Your task to perform on an android device: open chrome privacy settings Image 0: 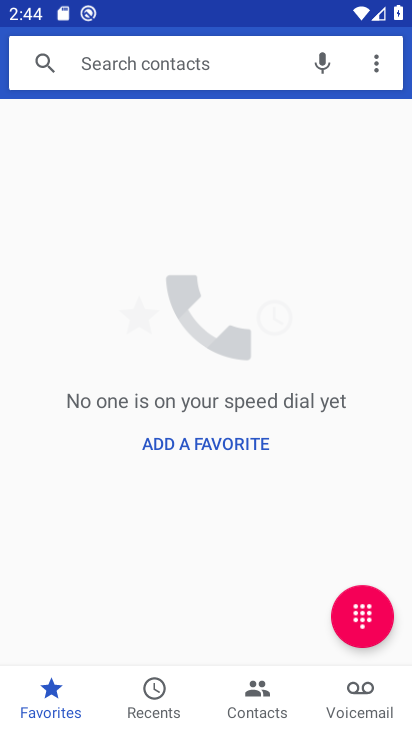
Step 0: press home button
Your task to perform on an android device: open chrome privacy settings Image 1: 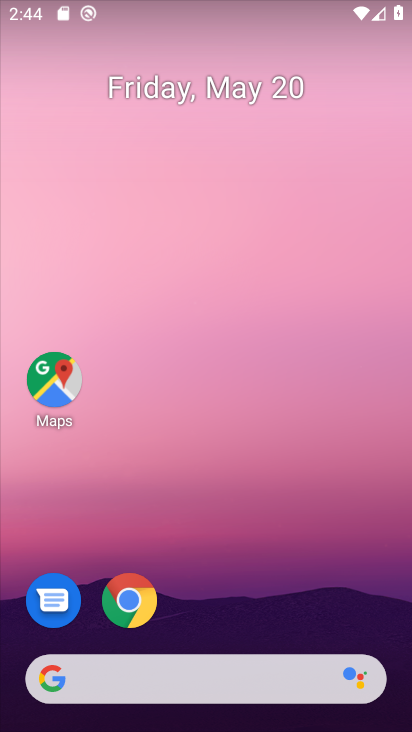
Step 1: drag from (356, 607) to (363, 194)
Your task to perform on an android device: open chrome privacy settings Image 2: 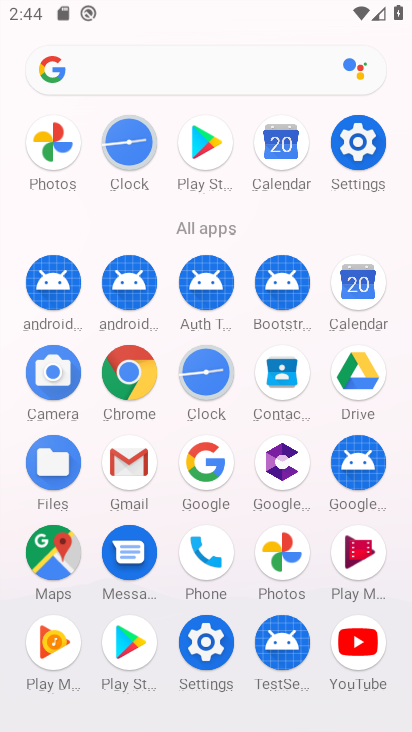
Step 2: click (138, 379)
Your task to perform on an android device: open chrome privacy settings Image 3: 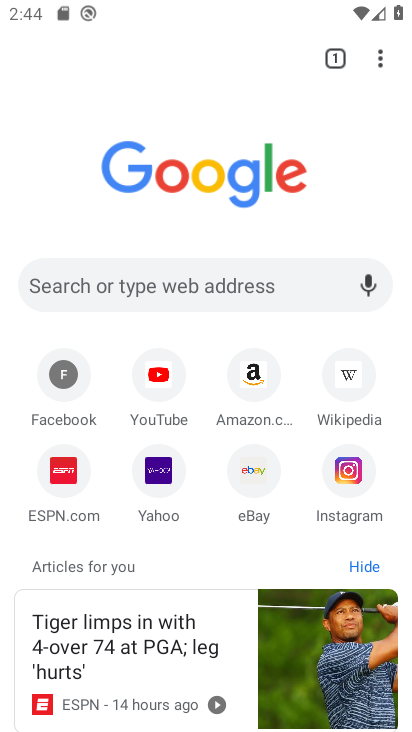
Step 3: click (379, 65)
Your task to perform on an android device: open chrome privacy settings Image 4: 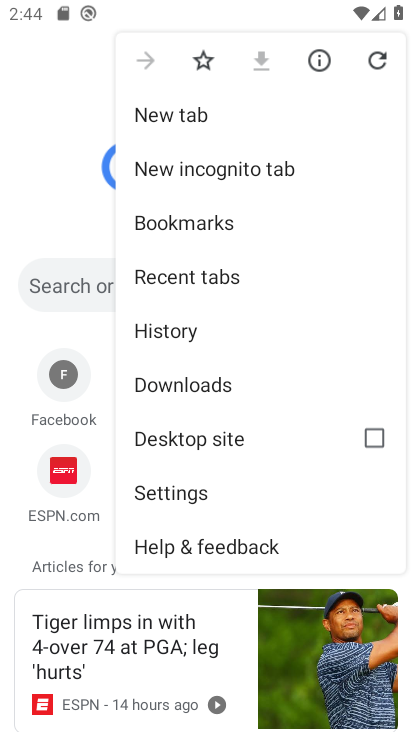
Step 4: click (190, 502)
Your task to perform on an android device: open chrome privacy settings Image 5: 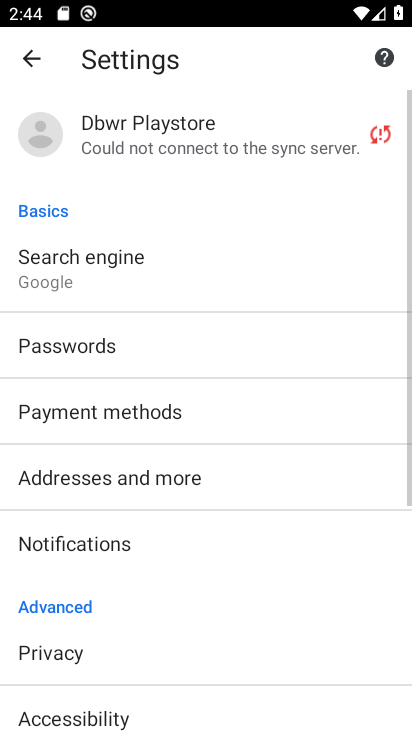
Step 5: drag from (258, 549) to (271, 468)
Your task to perform on an android device: open chrome privacy settings Image 6: 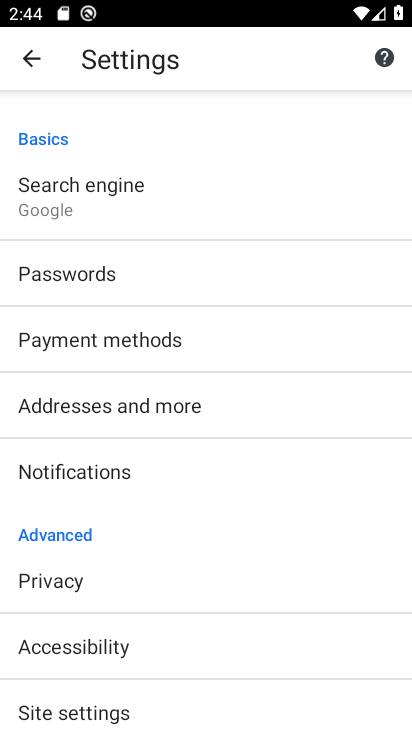
Step 6: drag from (282, 570) to (284, 505)
Your task to perform on an android device: open chrome privacy settings Image 7: 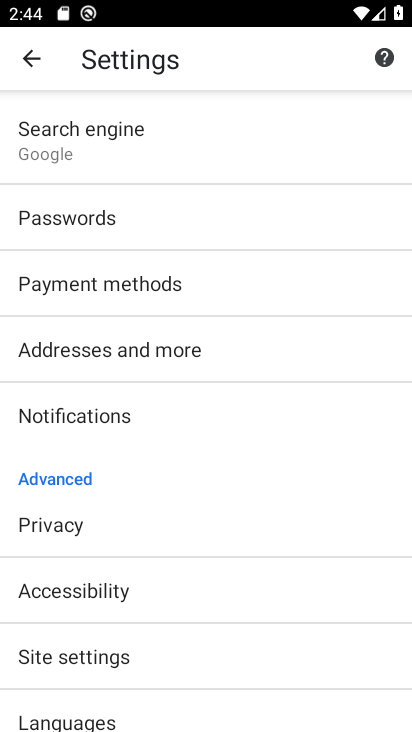
Step 7: drag from (289, 576) to (291, 509)
Your task to perform on an android device: open chrome privacy settings Image 8: 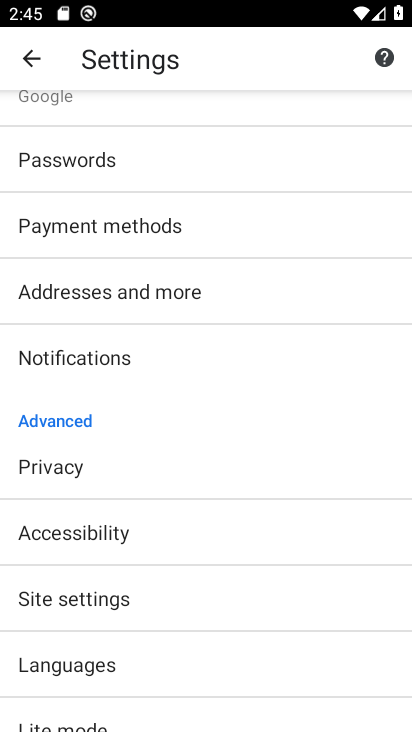
Step 8: drag from (296, 572) to (296, 511)
Your task to perform on an android device: open chrome privacy settings Image 9: 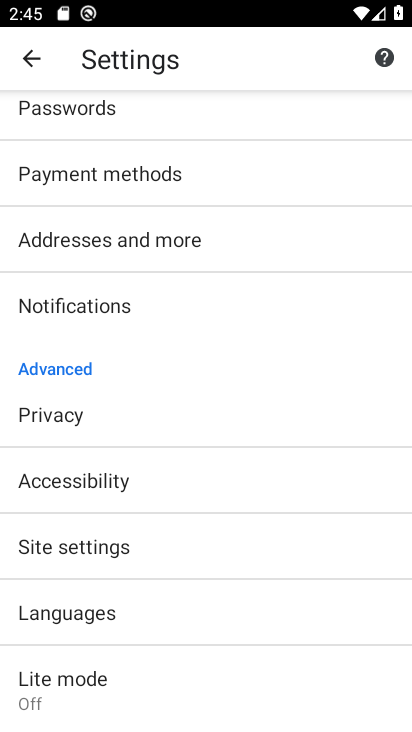
Step 9: drag from (292, 567) to (295, 509)
Your task to perform on an android device: open chrome privacy settings Image 10: 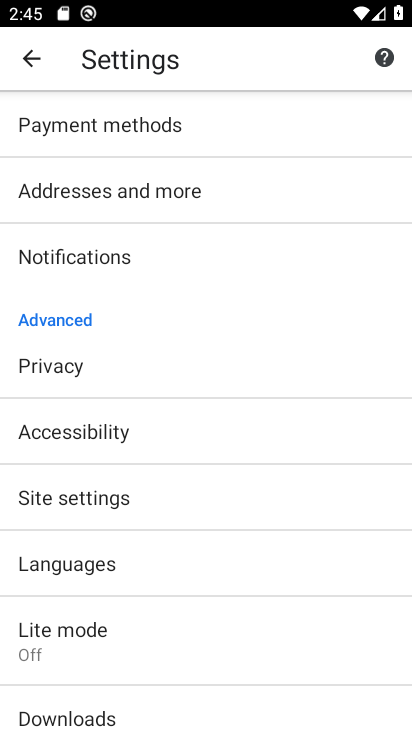
Step 10: drag from (298, 570) to (302, 515)
Your task to perform on an android device: open chrome privacy settings Image 11: 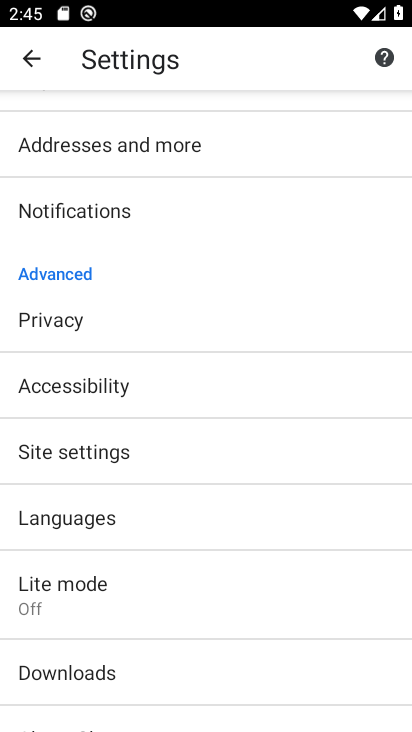
Step 11: click (301, 532)
Your task to perform on an android device: open chrome privacy settings Image 12: 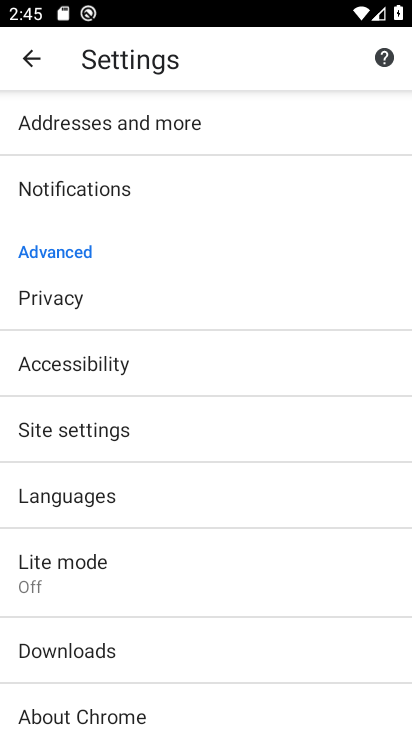
Step 12: drag from (294, 569) to (305, 502)
Your task to perform on an android device: open chrome privacy settings Image 13: 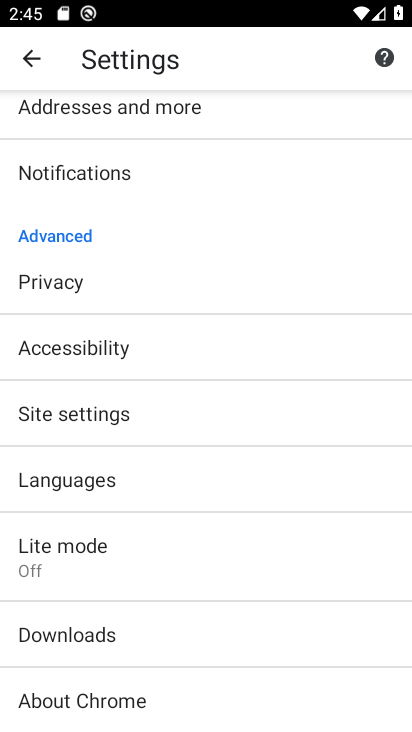
Step 13: drag from (300, 574) to (301, 512)
Your task to perform on an android device: open chrome privacy settings Image 14: 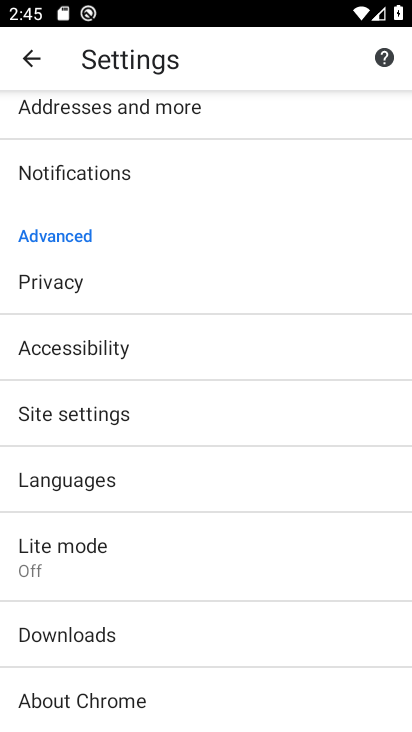
Step 14: drag from (278, 418) to (270, 490)
Your task to perform on an android device: open chrome privacy settings Image 15: 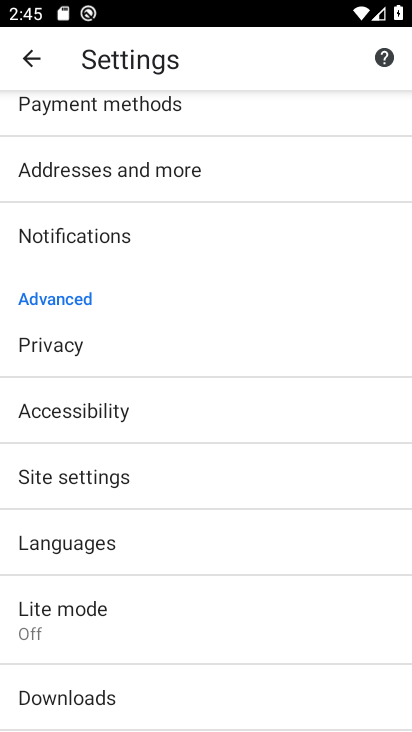
Step 15: drag from (275, 427) to (277, 500)
Your task to perform on an android device: open chrome privacy settings Image 16: 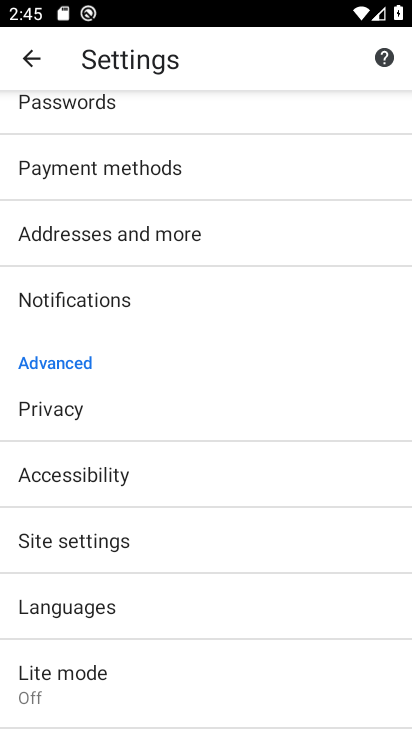
Step 16: drag from (271, 428) to (269, 510)
Your task to perform on an android device: open chrome privacy settings Image 17: 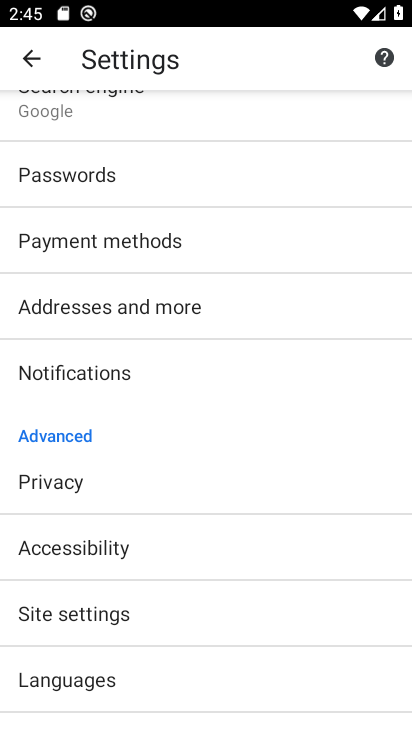
Step 17: drag from (244, 433) to (249, 534)
Your task to perform on an android device: open chrome privacy settings Image 18: 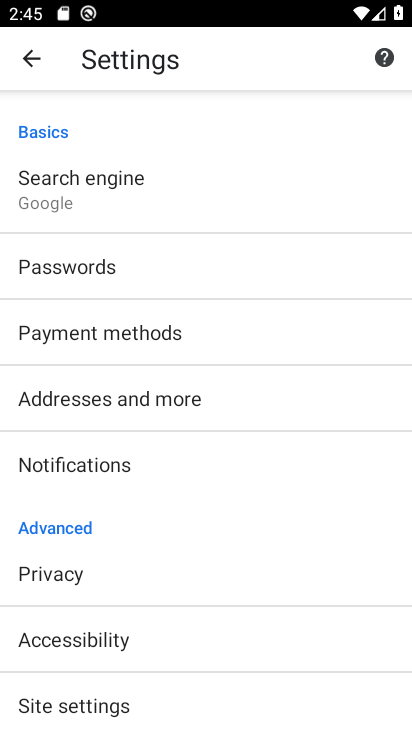
Step 18: click (109, 581)
Your task to perform on an android device: open chrome privacy settings Image 19: 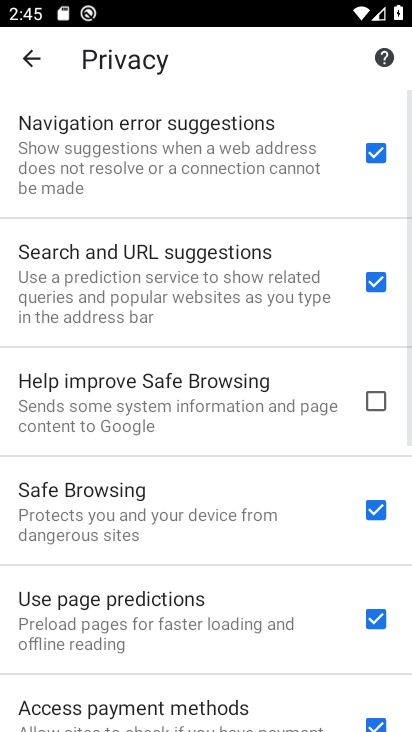
Step 19: task complete